Your task to perform on an android device: Go to eBay Image 0: 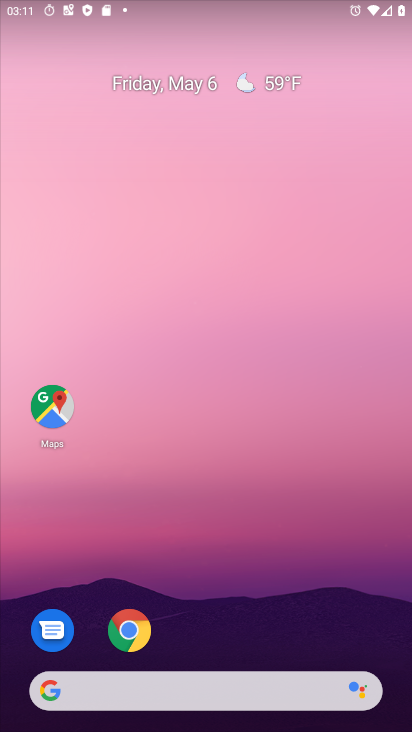
Step 0: click (126, 634)
Your task to perform on an android device: Go to eBay Image 1: 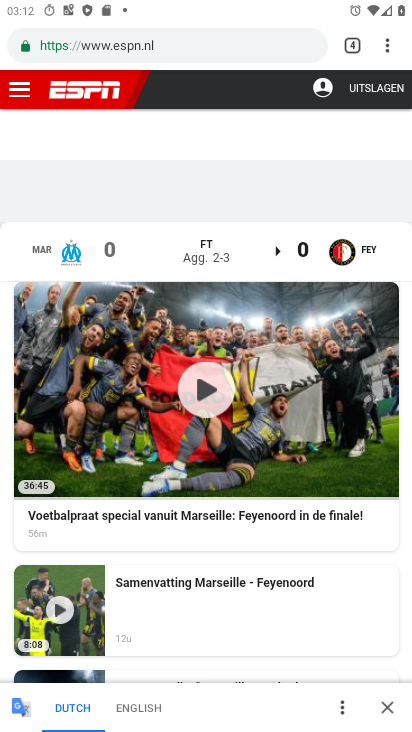
Step 1: click (346, 38)
Your task to perform on an android device: Go to eBay Image 2: 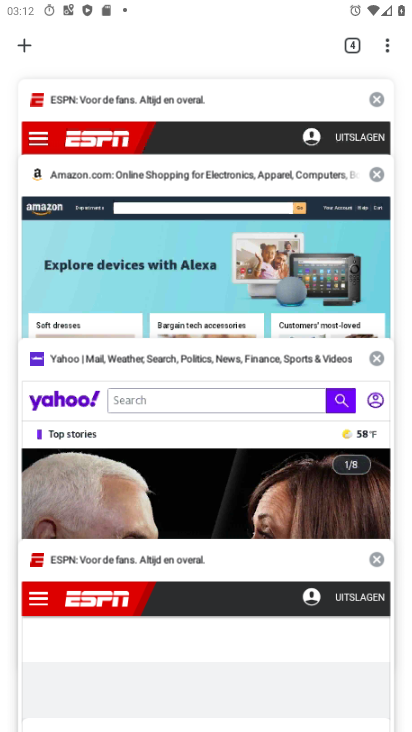
Step 2: click (25, 50)
Your task to perform on an android device: Go to eBay Image 3: 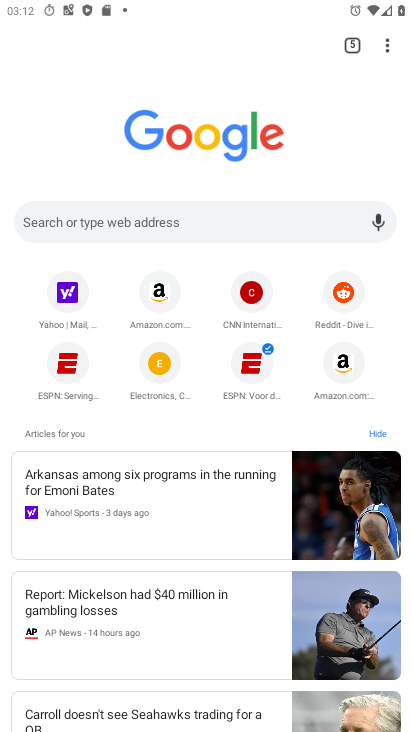
Step 3: click (265, 216)
Your task to perform on an android device: Go to eBay Image 4: 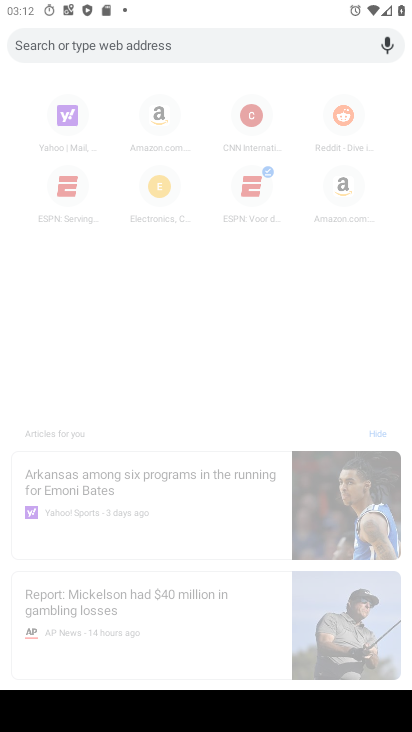
Step 4: type "eBay"
Your task to perform on an android device: Go to eBay Image 5: 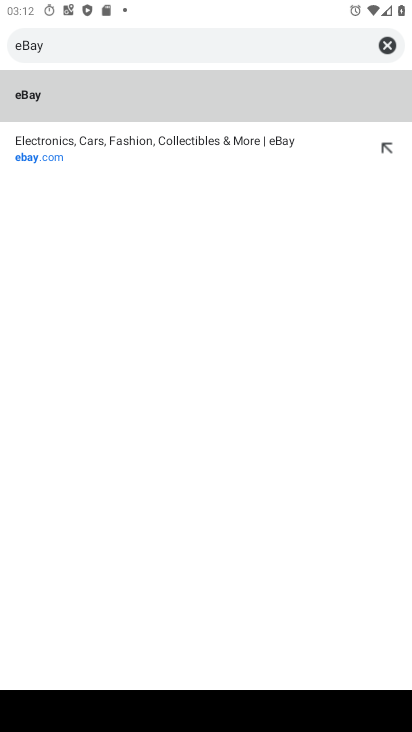
Step 5: click (72, 110)
Your task to perform on an android device: Go to eBay Image 6: 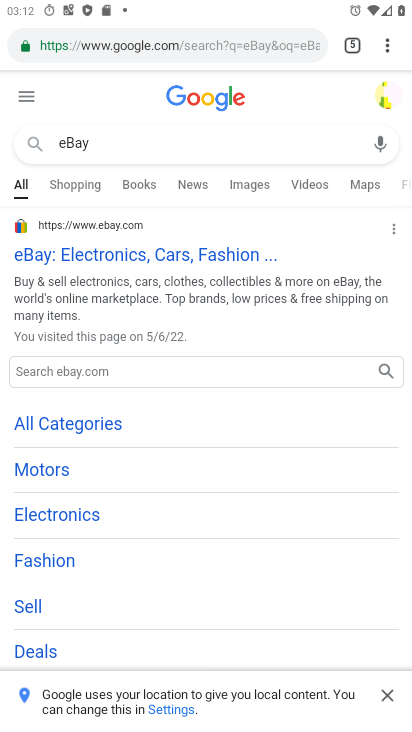
Step 6: click (88, 260)
Your task to perform on an android device: Go to eBay Image 7: 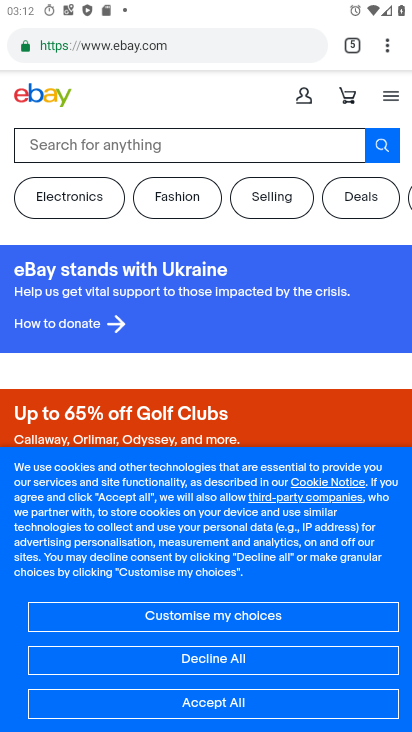
Step 7: task complete